Your task to perform on an android device: Open calendar and show me the second week of next month Image 0: 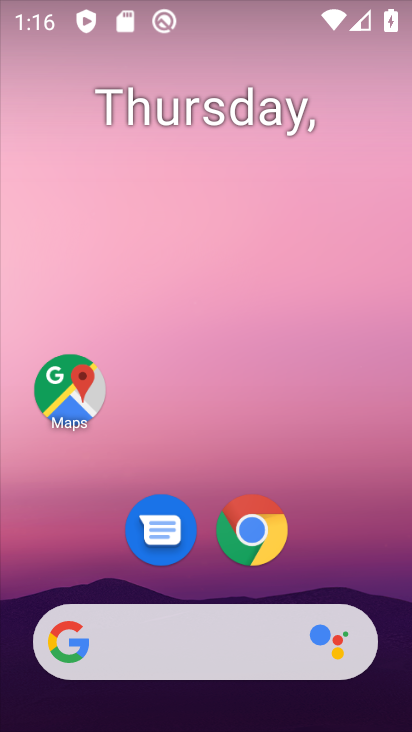
Step 0: drag from (209, 701) to (328, 429)
Your task to perform on an android device: Open calendar and show me the second week of next month Image 1: 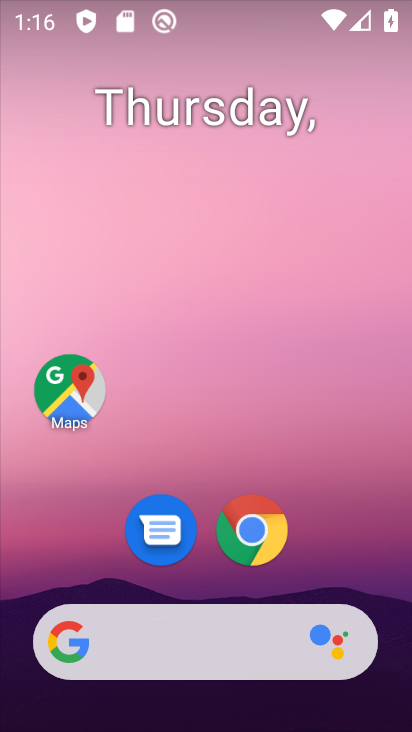
Step 1: drag from (296, 479) to (345, 0)
Your task to perform on an android device: Open calendar and show me the second week of next month Image 2: 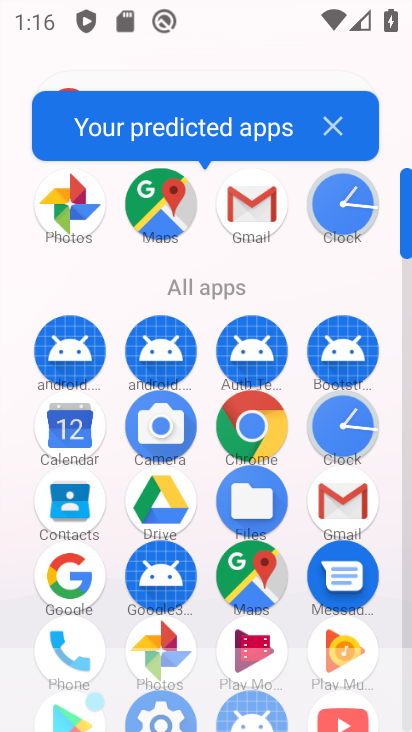
Step 2: click (76, 429)
Your task to perform on an android device: Open calendar and show me the second week of next month Image 3: 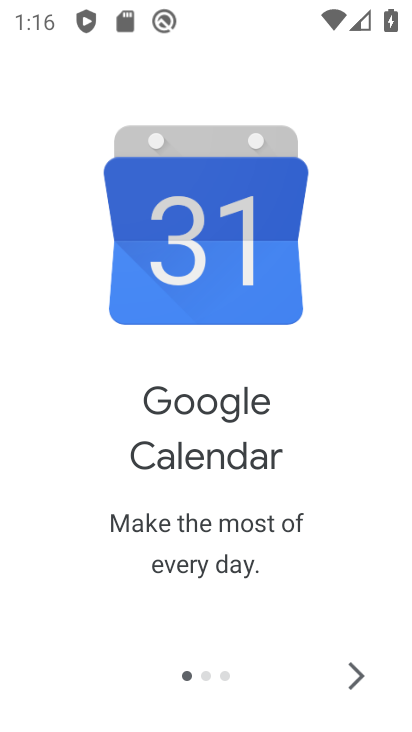
Step 3: click (337, 674)
Your task to perform on an android device: Open calendar and show me the second week of next month Image 4: 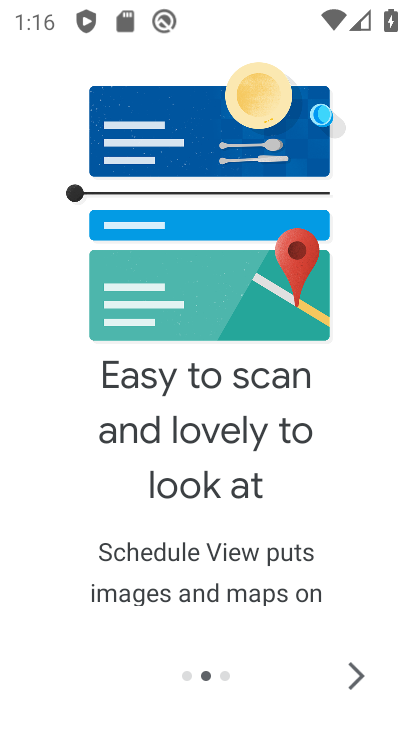
Step 4: click (337, 674)
Your task to perform on an android device: Open calendar and show me the second week of next month Image 5: 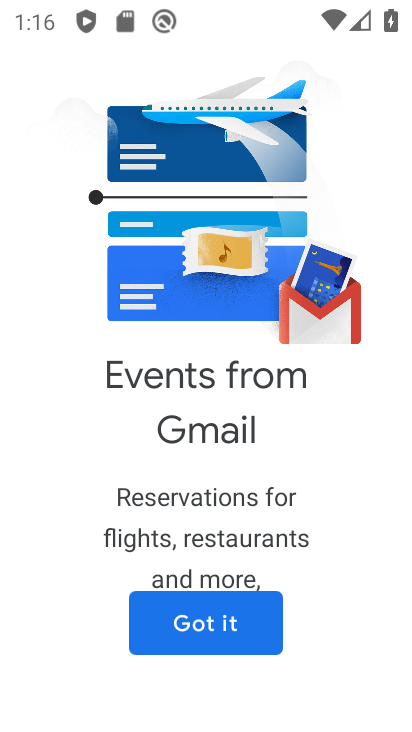
Step 5: click (337, 674)
Your task to perform on an android device: Open calendar and show me the second week of next month Image 6: 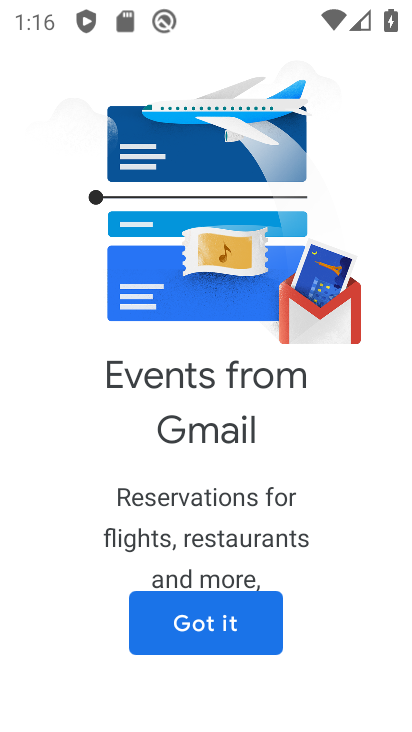
Step 6: click (205, 625)
Your task to perform on an android device: Open calendar and show me the second week of next month Image 7: 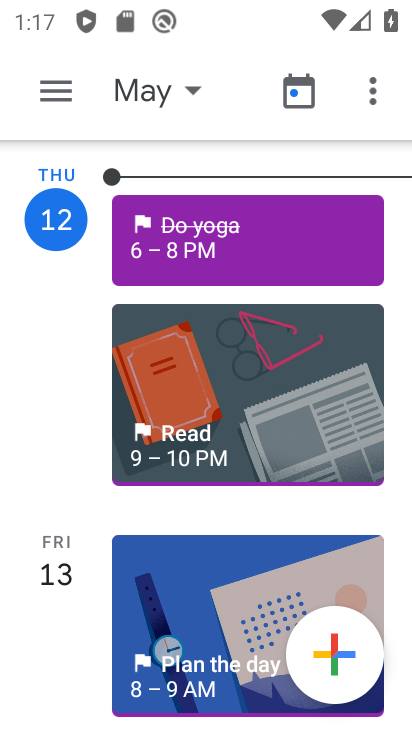
Step 7: click (151, 95)
Your task to perform on an android device: Open calendar and show me the second week of next month Image 8: 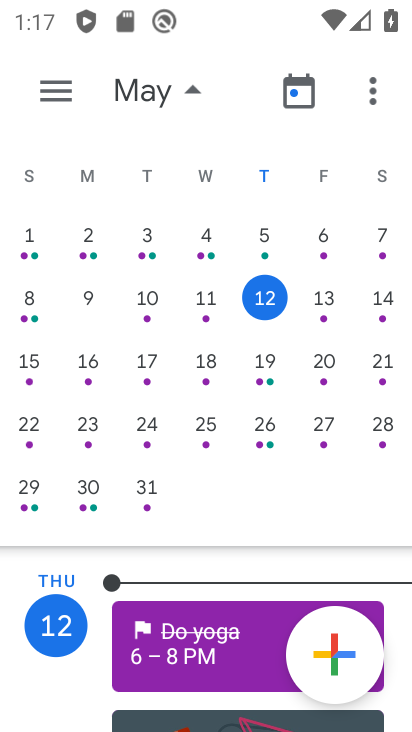
Step 8: drag from (346, 392) to (0, 388)
Your task to perform on an android device: Open calendar and show me the second week of next month Image 9: 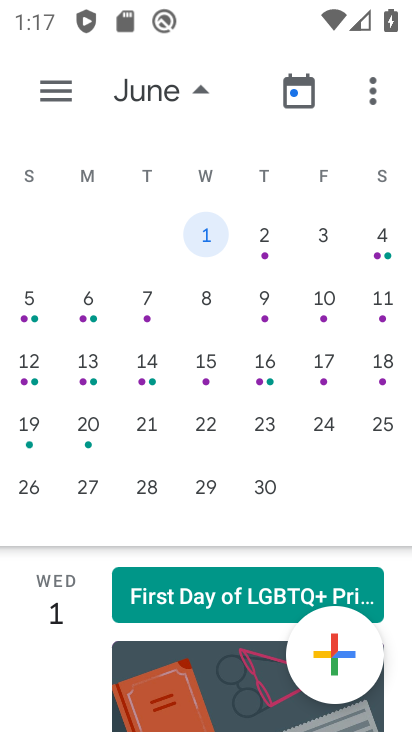
Step 9: click (27, 308)
Your task to perform on an android device: Open calendar and show me the second week of next month Image 10: 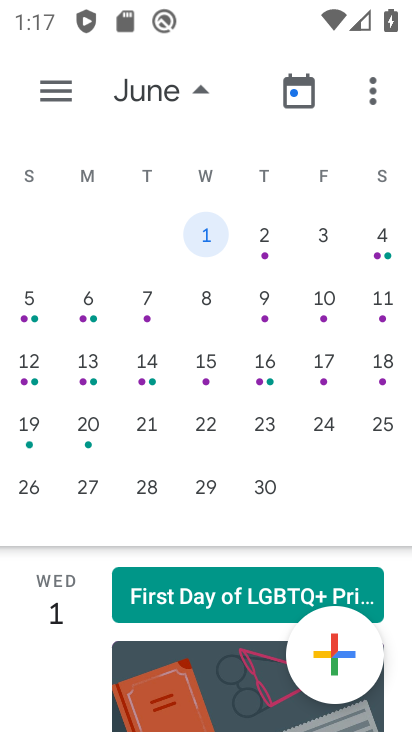
Step 10: click (23, 303)
Your task to perform on an android device: Open calendar and show me the second week of next month Image 11: 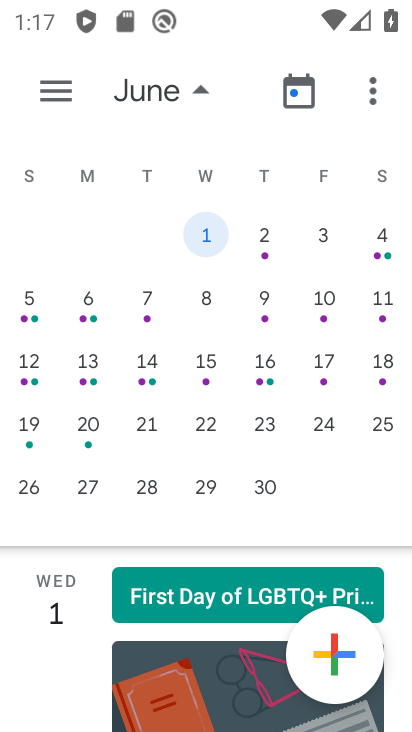
Step 11: click (33, 306)
Your task to perform on an android device: Open calendar and show me the second week of next month Image 12: 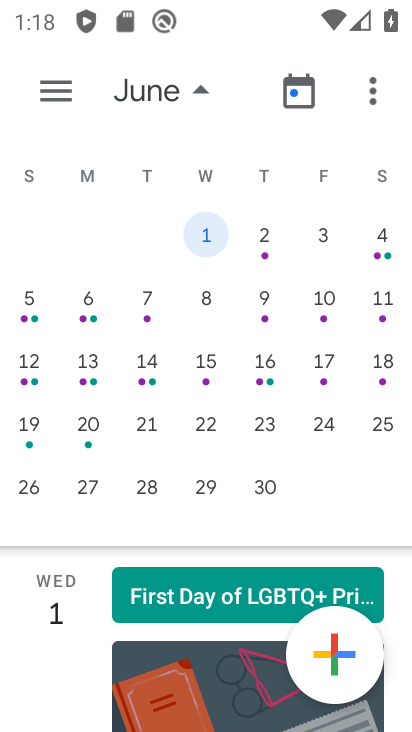
Step 12: click (29, 295)
Your task to perform on an android device: Open calendar and show me the second week of next month Image 13: 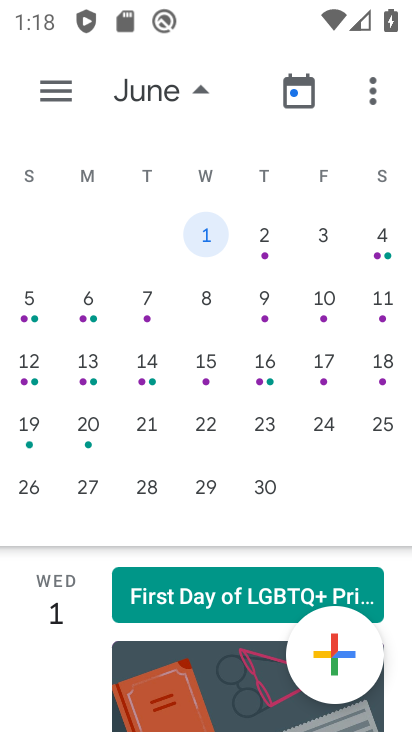
Step 13: click (29, 295)
Your task to perform on an android device: Open calendar and show me the second week of next month Image 14: 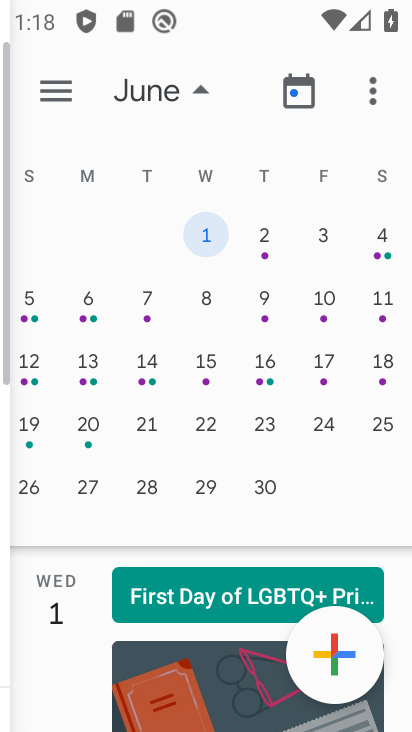
Step 14: click (23, 310)
Your task to perform on an android device: Open calendar and show me the second week of next month Image 15: 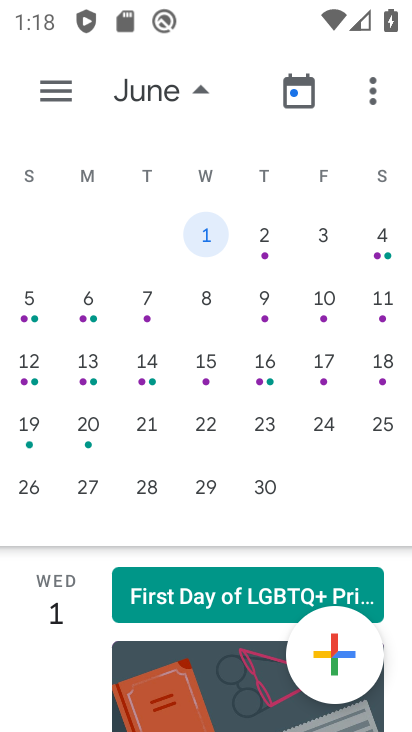
Step 15: click (31, 308)
Your task to perform on an android device: Open calendar and show me the second week of next month Image 16: 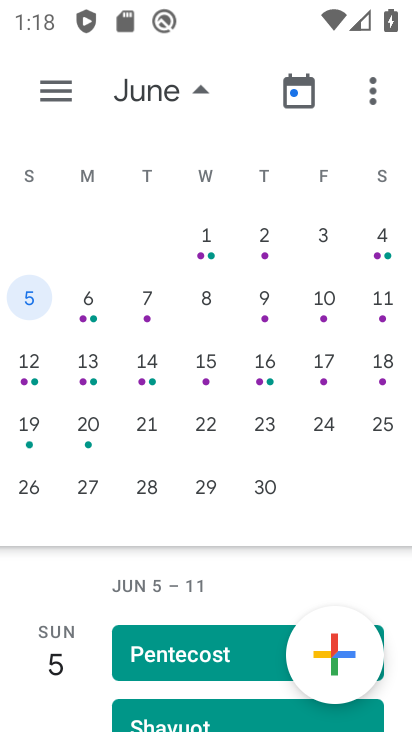
Step 16: click (25, 295)
Your task to perform on an android device: Open calendar and show me the second week of next month Image 17: 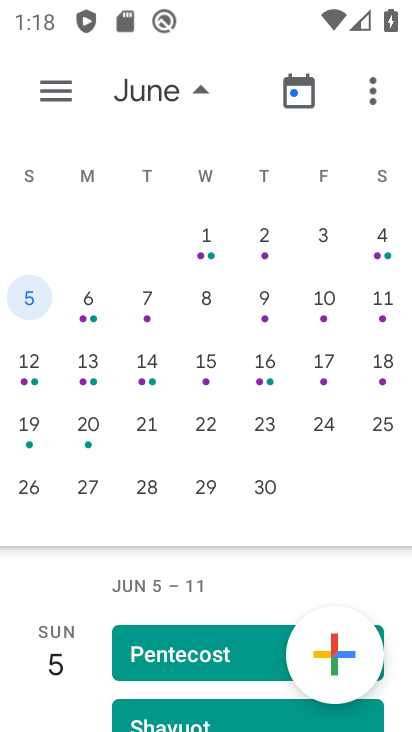
Step 17: task complete